Your task to perform on an android device: turn off notifications settings in the gmail app Image 0: 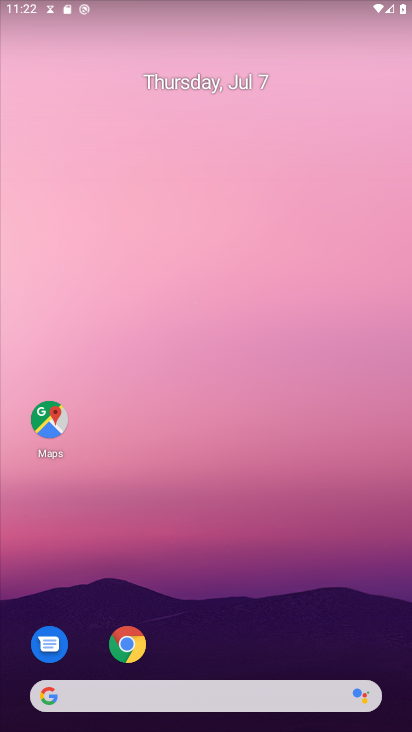
Step 0: press home button
Your task to perform on an android device: turn off notifications settings in the gmail app Image 1: 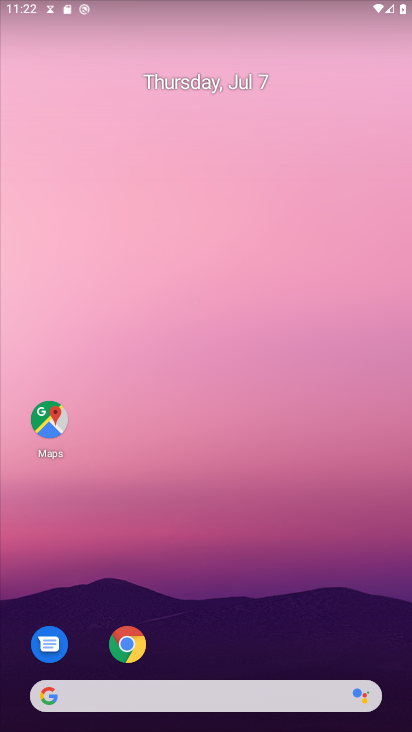
Step 1: drag from (206, 611) to (235, 33)
Your task to perform on an android device: turn off notifications settings in the gmail app Image 2: 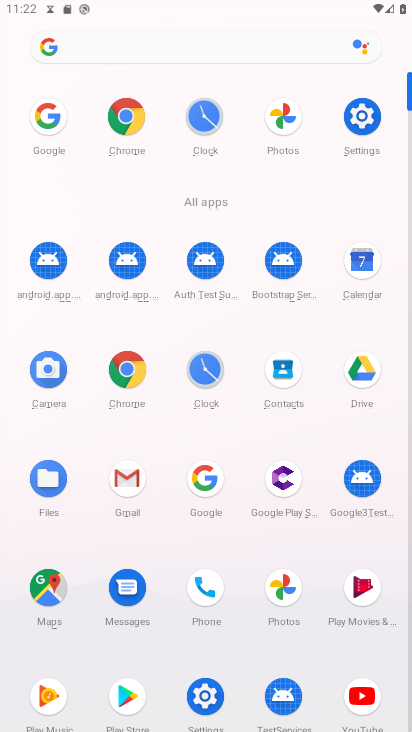
Step 2: click (122, 485)
Your task to perform on an android device: turn off notifications settings in the gmail app Image 3: 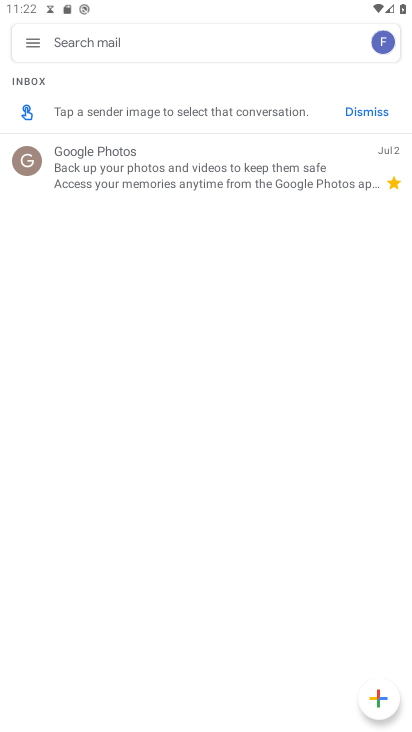
Step 3: click (32, 43)
Your task to perform on an android device: turn off notifications settings in the gmail app Image 4: 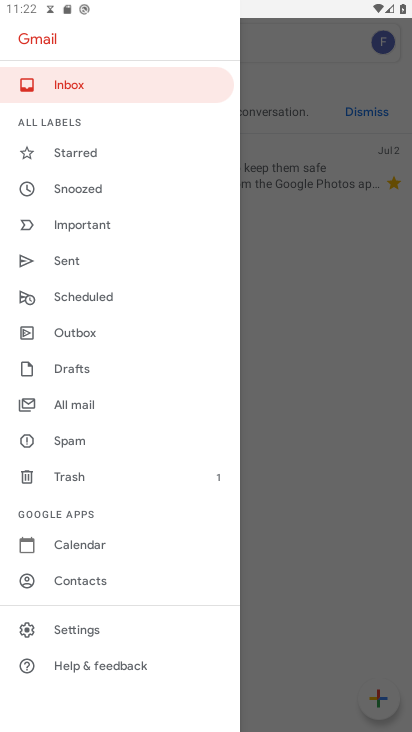
Step 4: click (68, 635)
Your task to perform on an android device: turn off notifications settings in the gmail app Image 5: 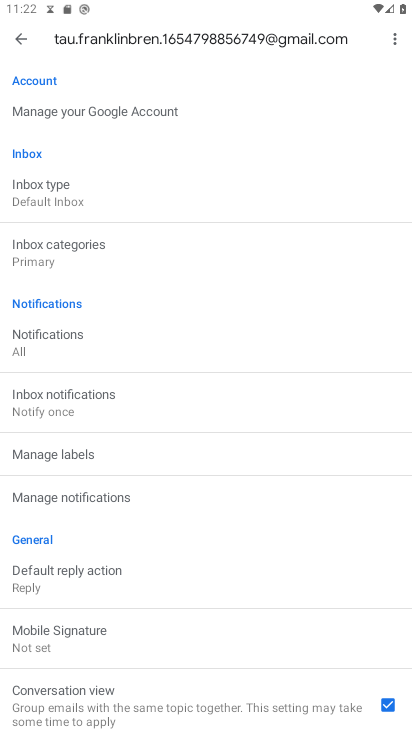
Step 5: click (108, 492)
Your task to perform on an android device: turn off notifications settings in the gmail app Image 6: 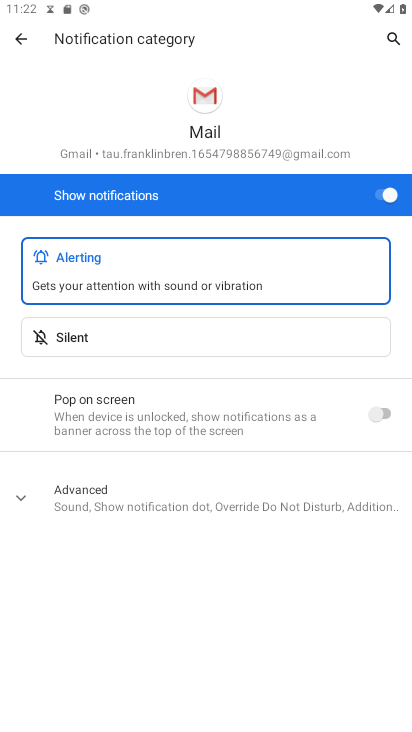
Step 6: click (389, 193)
Your task to perform on an android device: turn off notifications settings in the gmail app Image 7: 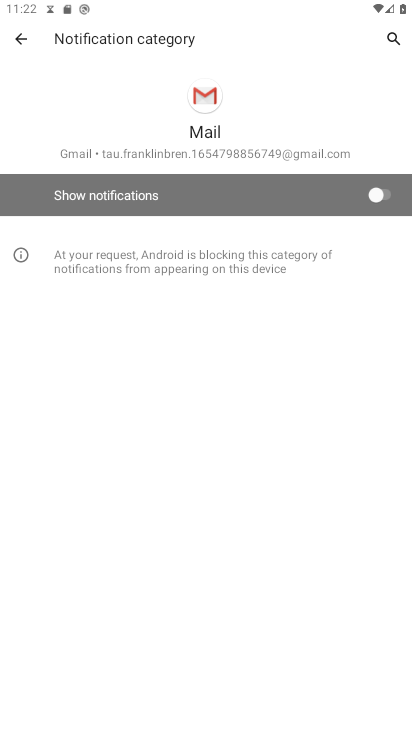
Step 7: task complete